Your task to perform on an android device: check storage Image 0: 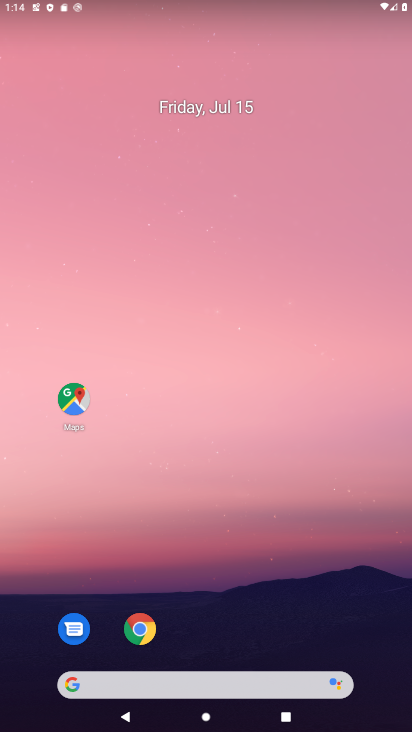
Step 0: click (265, 108)
Your task to perform on an android device: check storage Image 1: 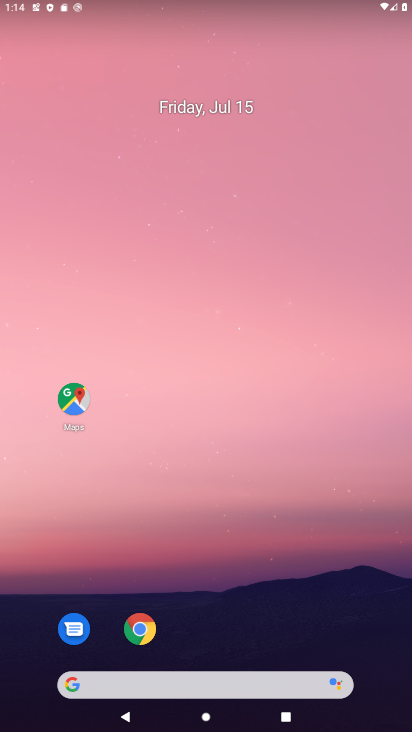
Step 1: drag from (317, 608) to (265, 0)
Your task to perform on an android device: check storage Image 2: 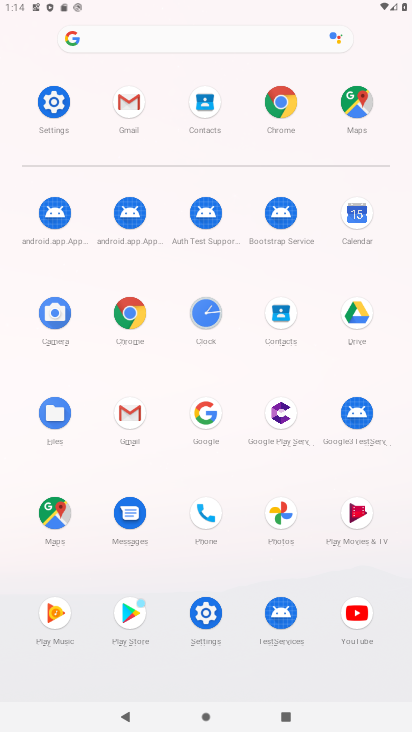
Step 2: click (202, 614)
Your task to perform on an android device: check storage Image 3: 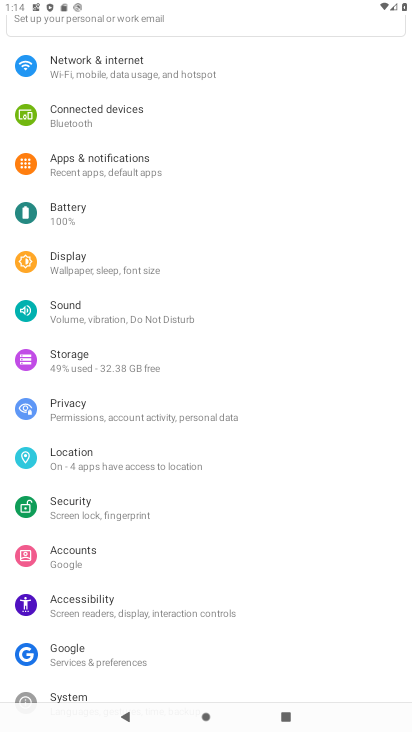
Step 3: click (126, 357)
Your task to perform on an android device: check storage Image 4: 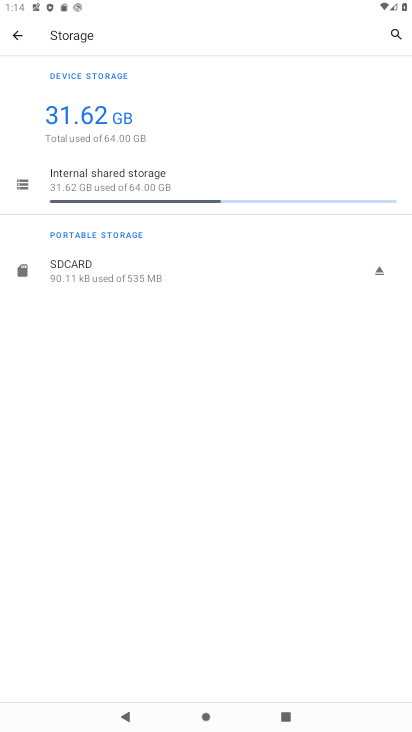
Step 4: task complete